Your task to perform on an android device: check storage Image 0: 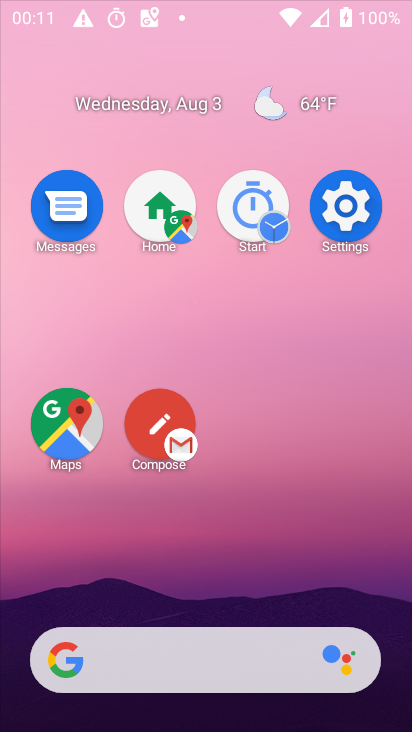
Step 0: drag from (277, 483) to (244, 267)
Your task to perform on an android device: check storage Image 1: 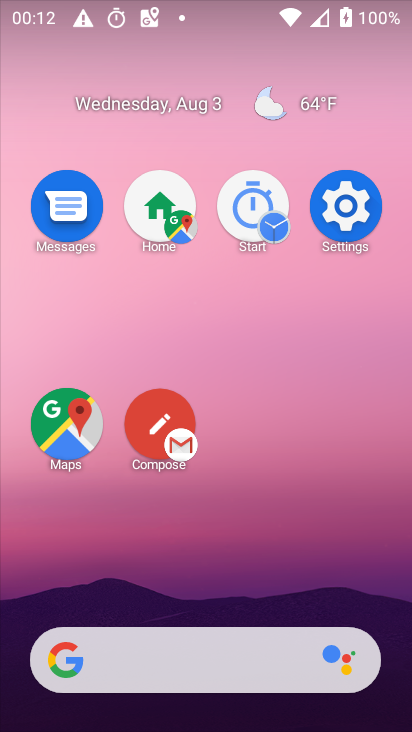
Step 1: drag from (247, 674) to (214, 155)
Your task to perform on an android device: check storage Image 2: 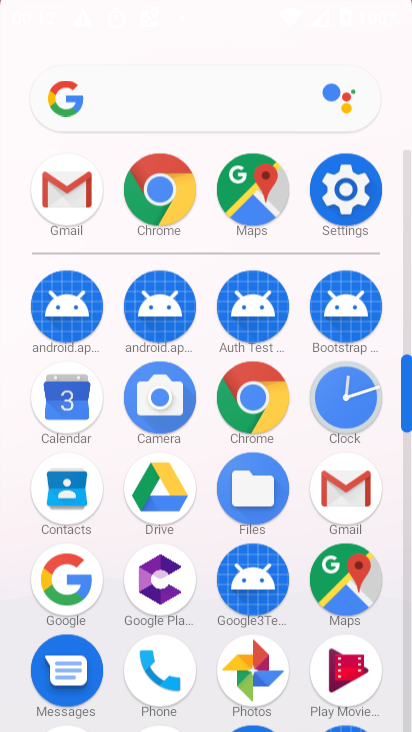
Step 2: drag from (283, 512) to (264, 125)
Your task to perform on an android device: check storage Image 3: 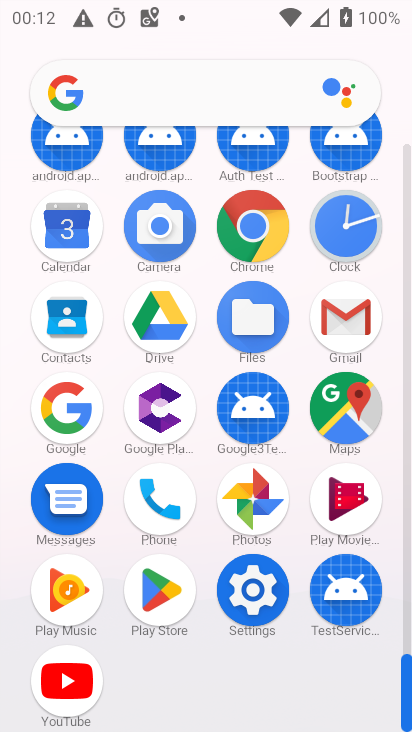
Step 3: click (247, 586)
Your task to perform on an android device: check storage Image 4: 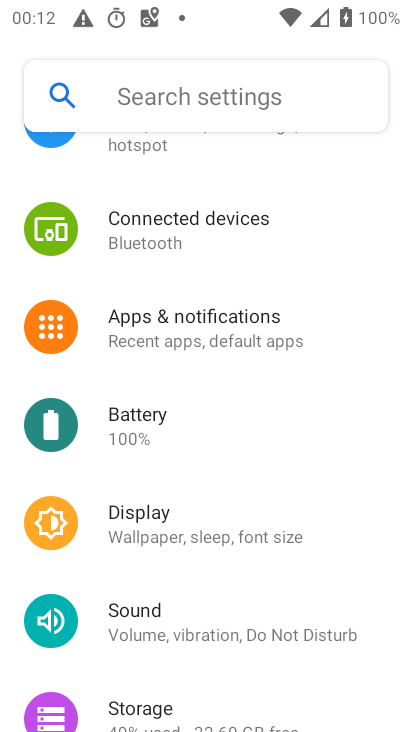
Step 4: click (250, 583)
Your task to perform on an android device: check storage Image 5: 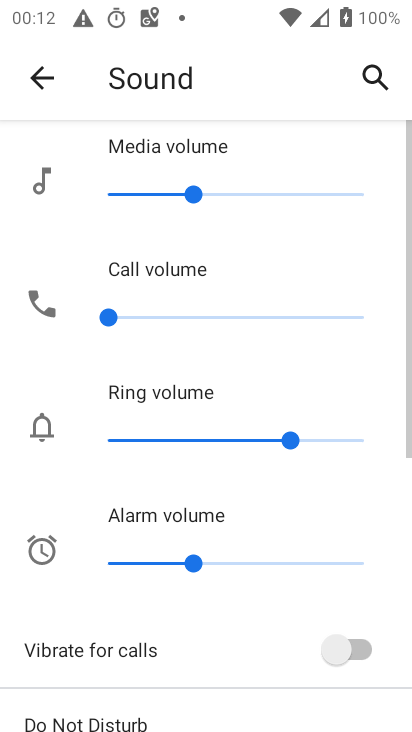
Step 5: click (55, 78)
Your task to perform on an android device: check storage Image 6: 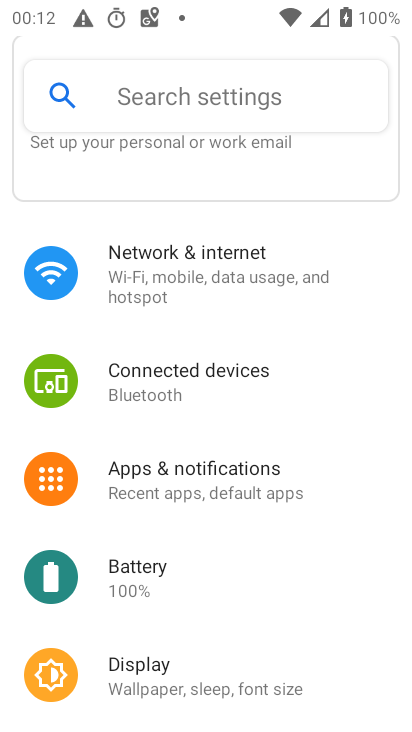
Step 6: drag from (187, 553) to (160, 193)
Your task to perform on an android device: check storage Image 7: 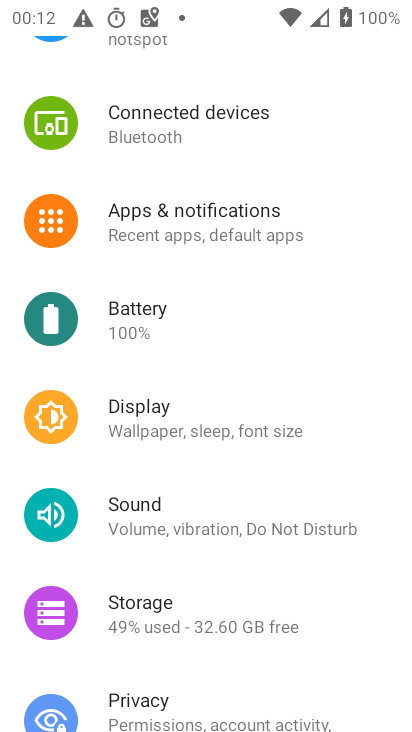
Step 7: drag from (213, 507) to (205, 200)
Your task to perform on an android device: check storage Image 8: 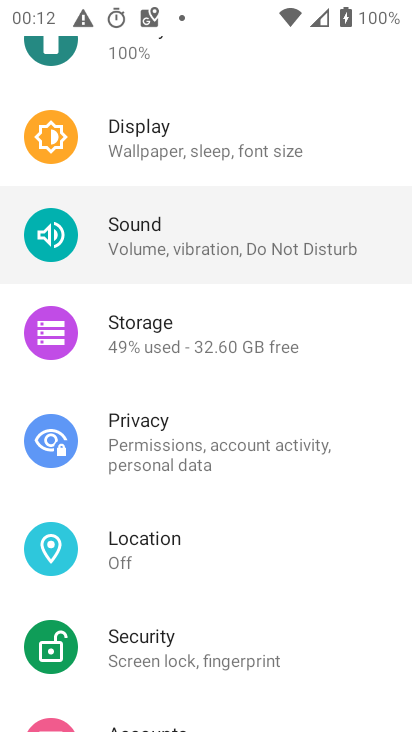
Step 8: drag from (229, 546) to (212, 235)
Your task to perform on an android device: check storage Image 9: 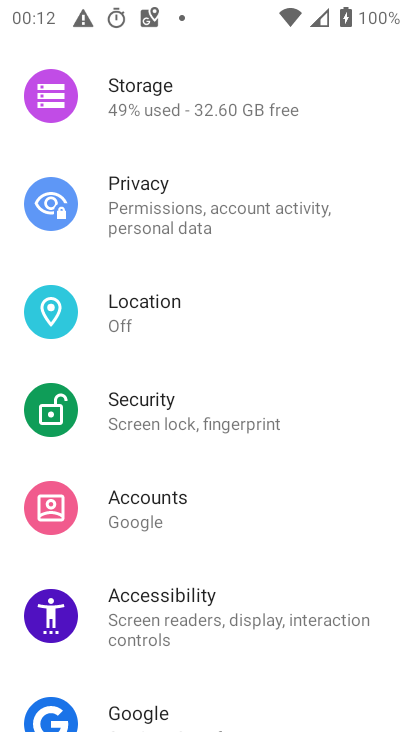
Step 9: click (135, 107)
Your task to perform on an android device: check storage Image 10: 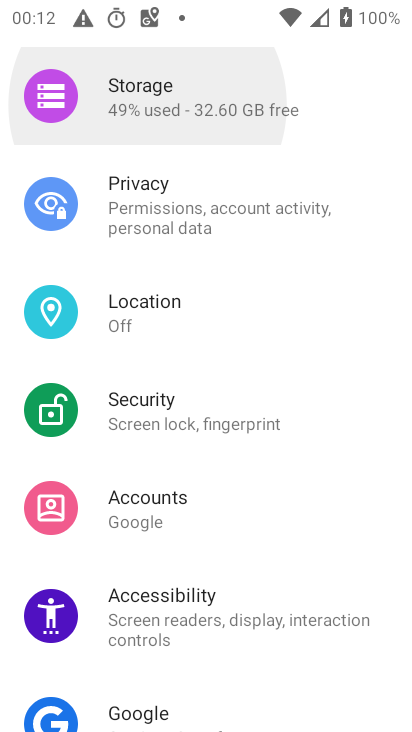
Step 10: click (134, 106)
Your task to perform on an android device: check storage Image 11: 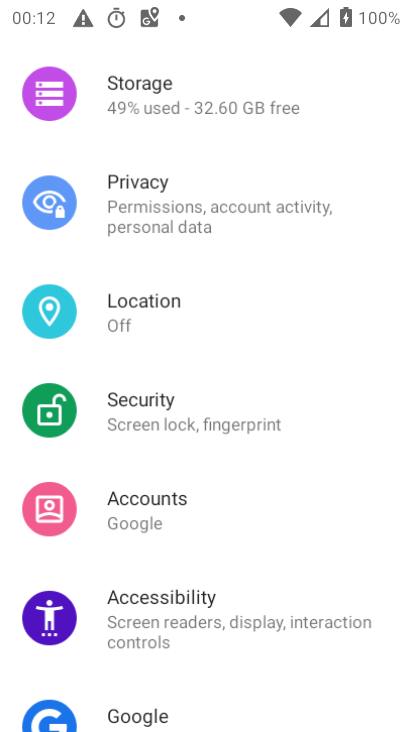
Step 11: click (133, 106)
Your task to perform on an android device: check storage Image 12: 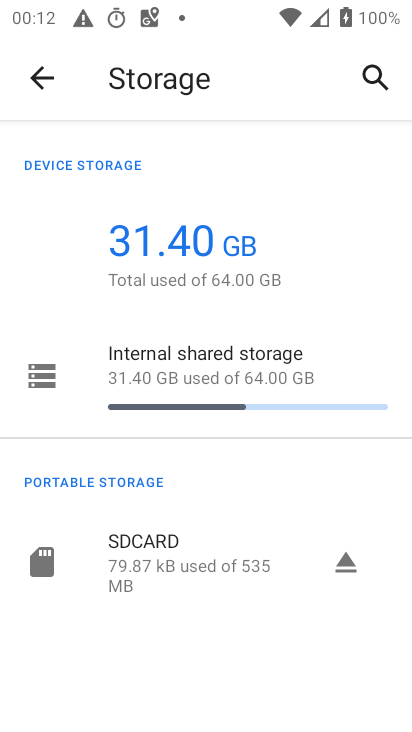
Step 12: task complete